Your task to perform on an android device: turn on the 24-hour format for clock Image 0: 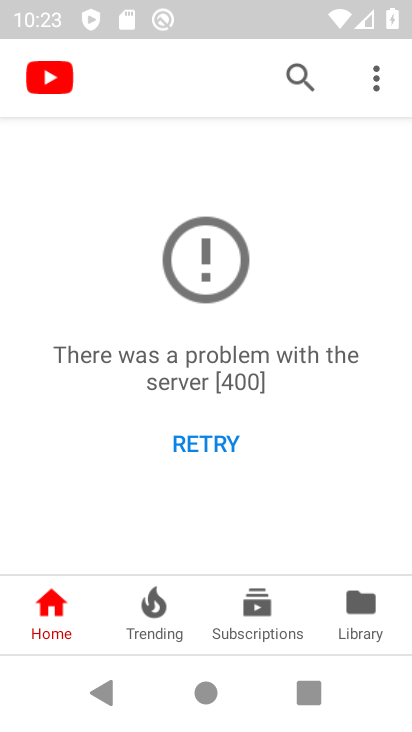
Step 0: press home button
Your task to perform on an android device: turn on the 24-hour format for clock Image 1: 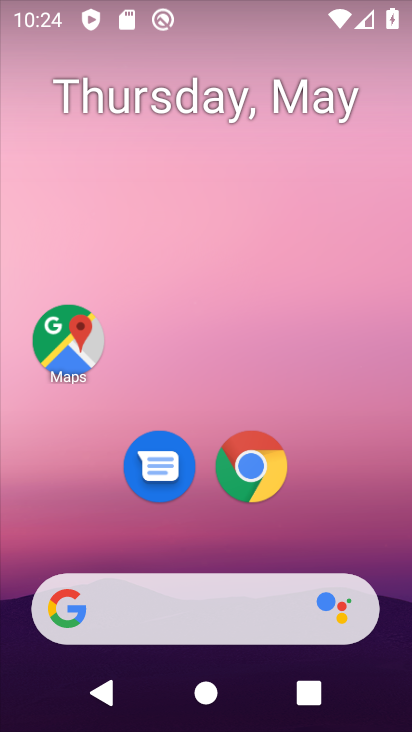
Step 1: drag from (330, 369) to (308, 3)
Your task to perform on an android device: turn on the 24-hour format for clock Image 2: 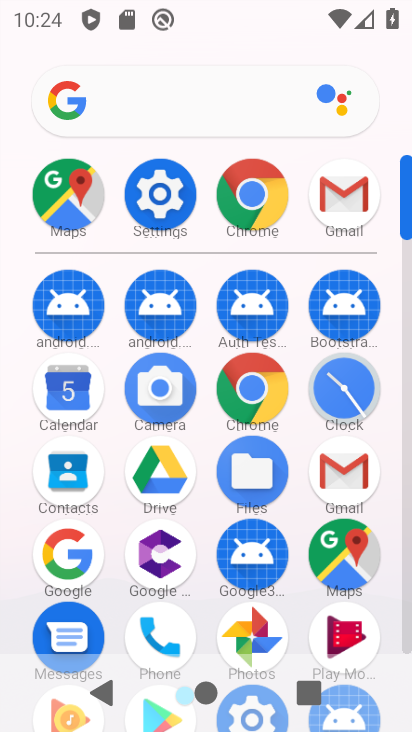
Step 2: click (336, 373)
Your task to perform on an android device: turn on the 24-hour format for clock Image 3: 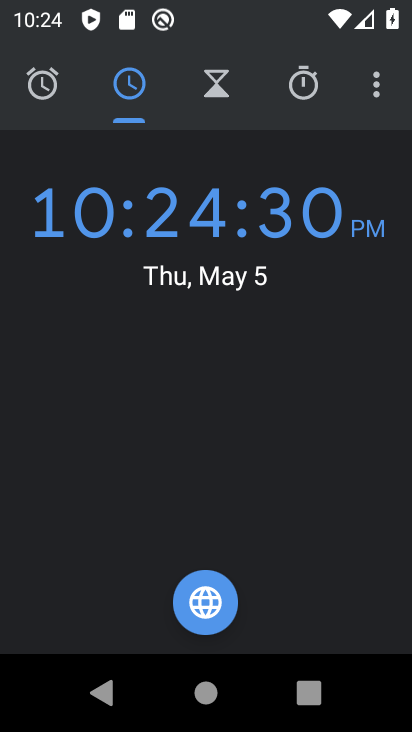
Step 3: click (380, 95)
Your task to perform on an android device: turn on the 24-hour format for clock Image 4: 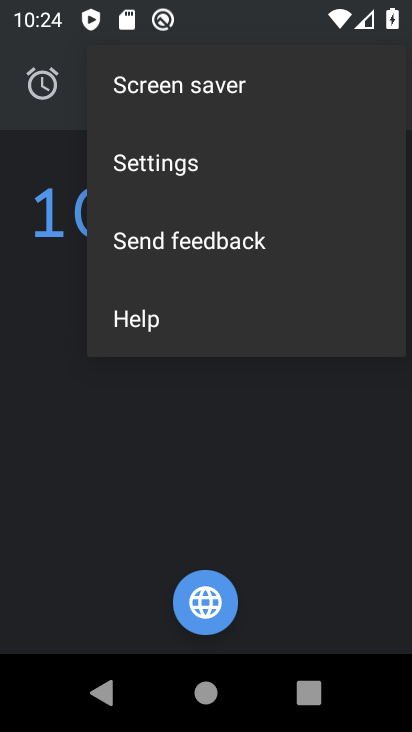
Step 4: click (189, 141)
Your task to perform on an android device: turn on the 24-hour format for clock Image 5: 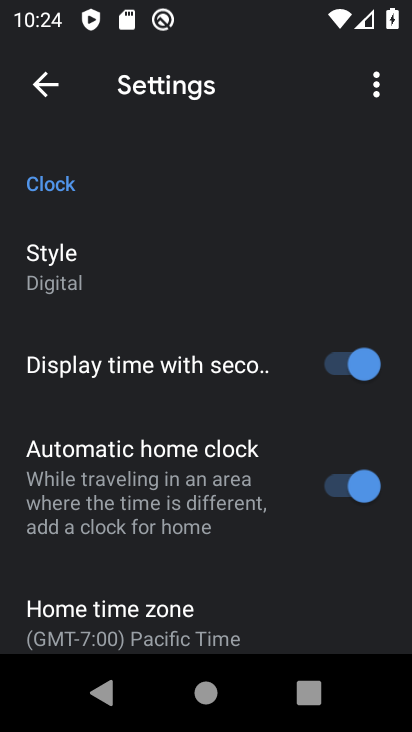
Step 5: drag from (131, 580) to (214, 35)
Your task to perform on an android device: turn on the 24-hour format for clock Image 6: 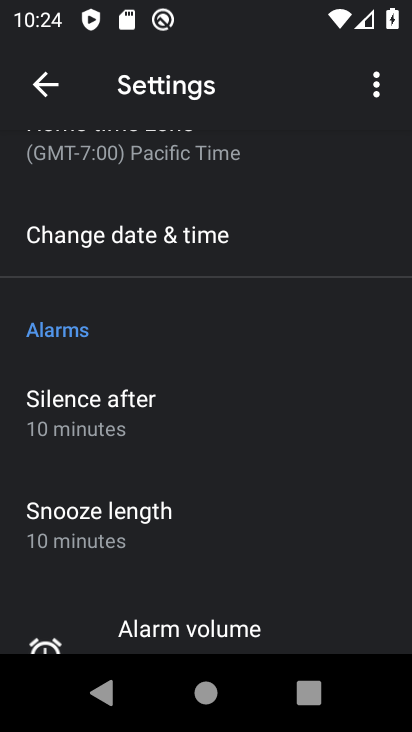
Step 6: drag from (228, 611) to (213, 535)
Your task to perform on an android device: turn on the 24-hour format for clock Image 7: 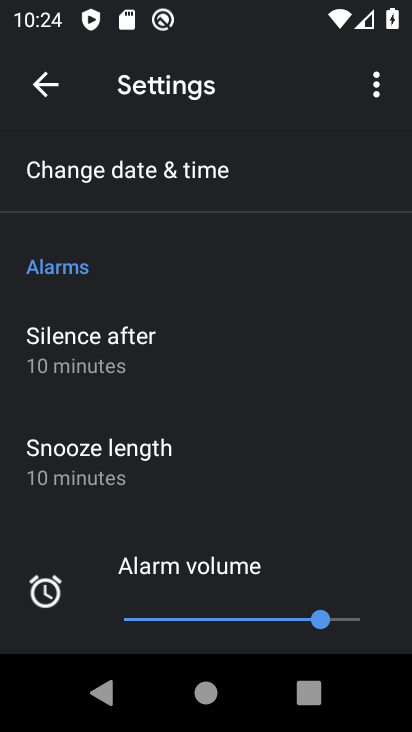
Step 7: click (195, 182)
Your task to perform on an android device: turn on the 24-hour format for clock Image 8: 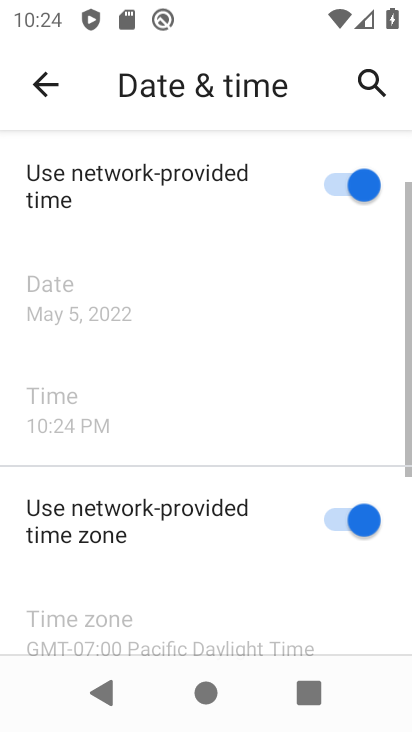
Step 8: drag from (175, 531) to (188, 26)
Your task to perform on an android device: turn on the 24-hour format for clock Image 9: 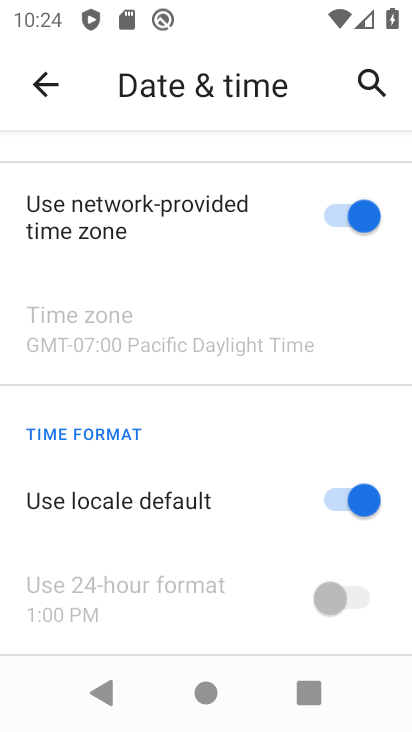
Step 9: click (333, 508)
Your task to perform on an android device: turn on the 24-hour format for clock Image 10: 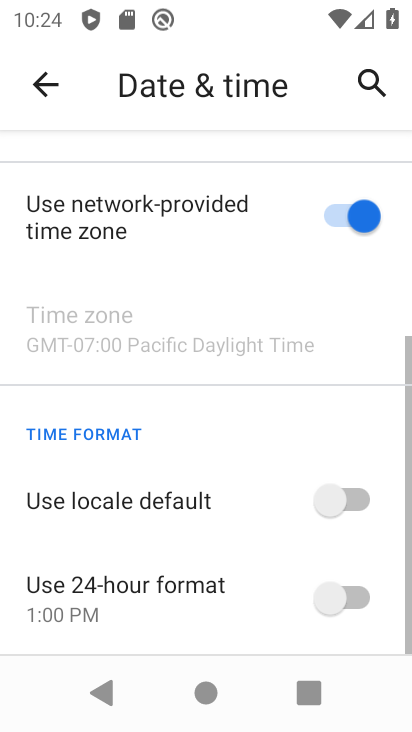
Step 10: click (364, 607)
Your task to perform on an android device: turn on the 24-hour format for clock Image 11: 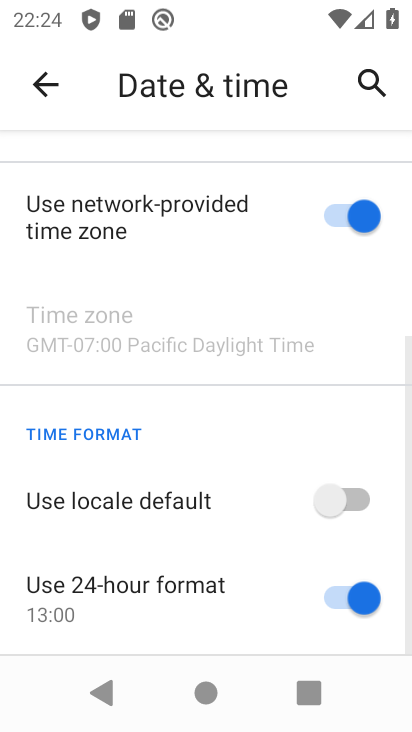
Step 11: task complete